Your task to perform on an android device: turn on bluetooth scan Image 0: 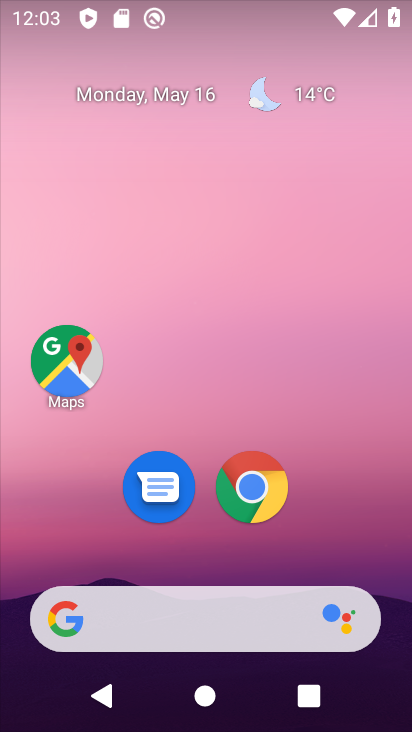
Step 0: drag from (142, 628) to (274, 283)
Your task to perform on an android device: turn on bluetooth scan Image 1: 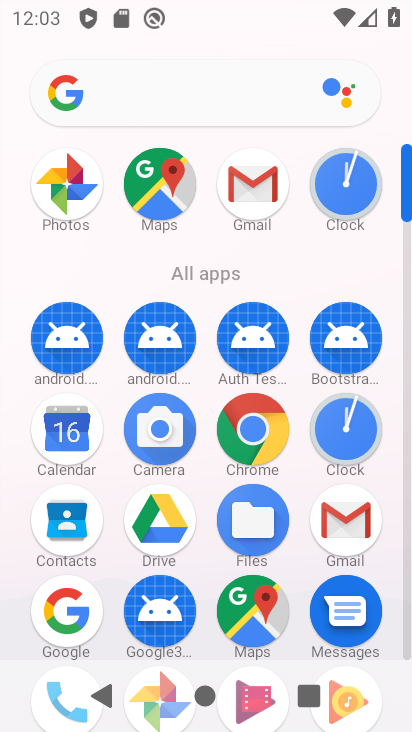
Step 1: drag from (199, 581) to (370, 121)
Your task to perform on an android device: turn on bluetooth scan Image 2: 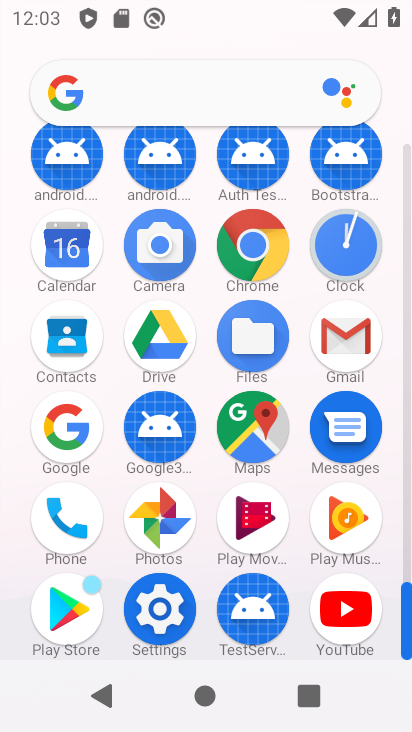
Step 2: click (167, 609)
Your task to perform on an android device: turn on bluetooth scan Image 3: 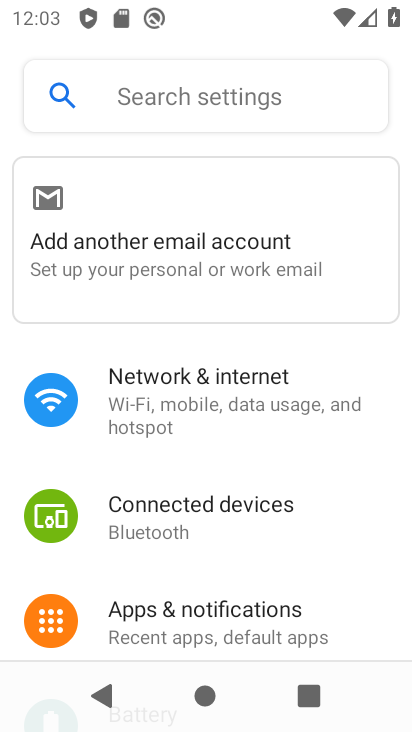
Step 3: drag from (185, 632) to (330, 72)
Your task to perform on an android device: turn on bluetooth scan Image 4: 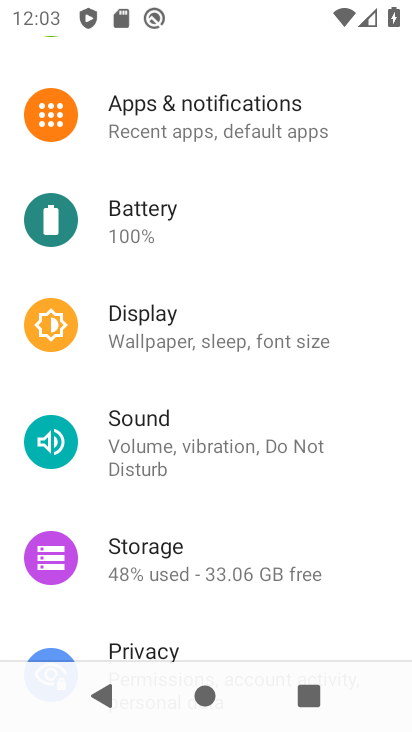
Step 4: drag from (149, 631) to (295, 180)
Your task to perform on an android device: turn on bluetooth scan Image 5: 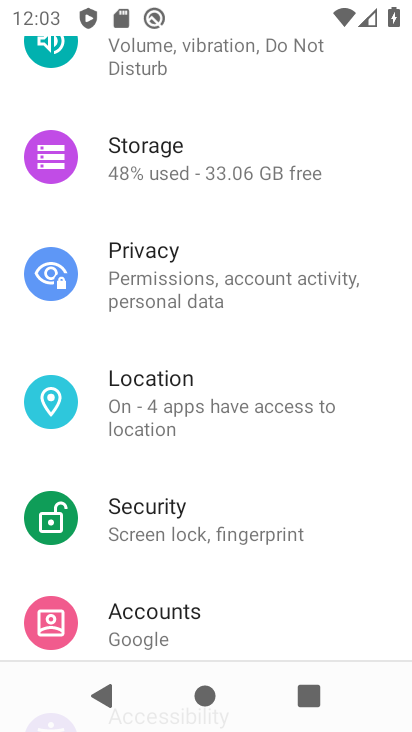
Step 5: click (182, 397)
Your task to perform on an android device: turn on bluetooth scan Image 6: 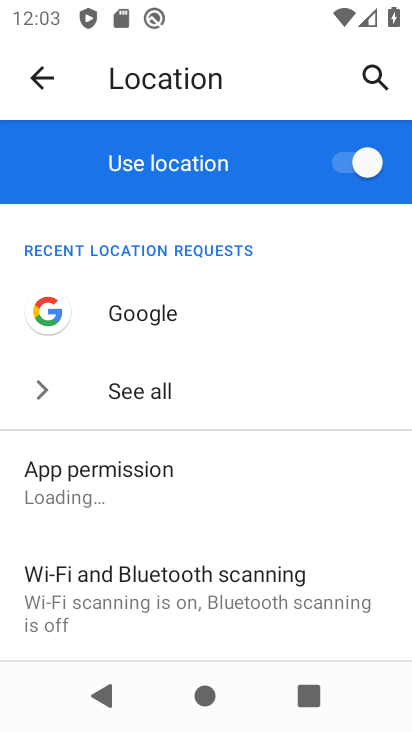
Step 6: click (153, 582)
Your task to perform on an android device: turn on bluetooth scan Image 7: 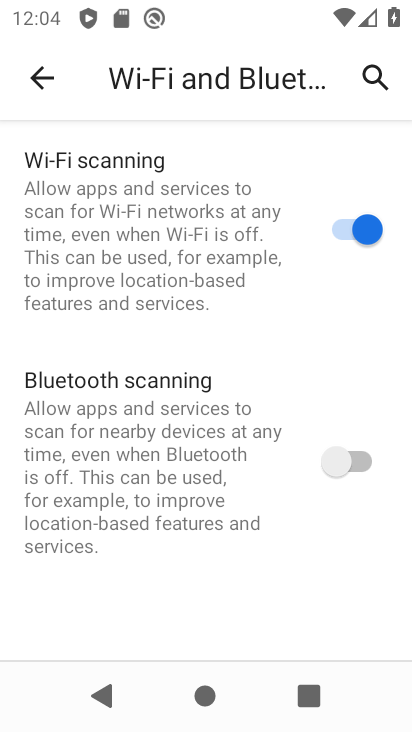
Step 7: click (352, 459)
Your task to perform on an android device: turn on bluetooth scan Image 8: 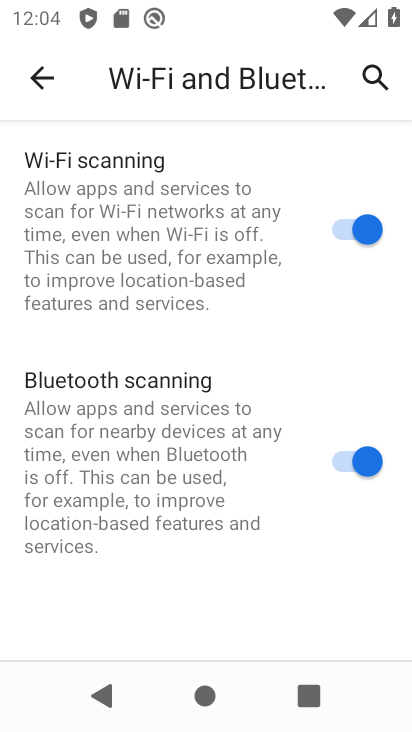
Step 8: task complete